Your task to perform on an android device: turn off location history Image 0: 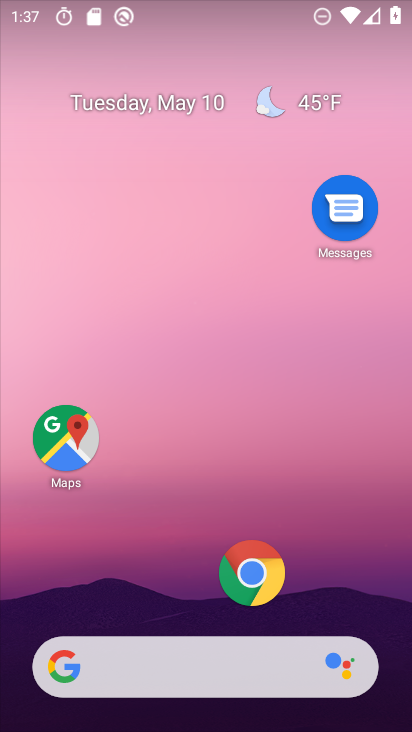
Step 0: drag from (212, 620) to (276, 184)
Your task to perform on an android device: turn off location history Image 1: 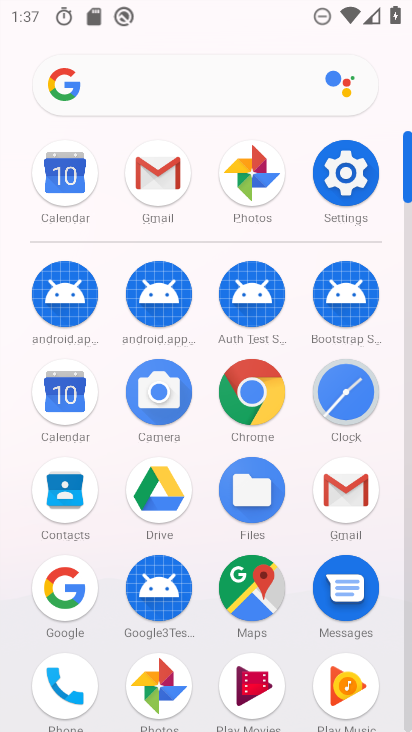
Step 1: click (360, 172)
Your task to perform on an android device: turn off location history Image 2: 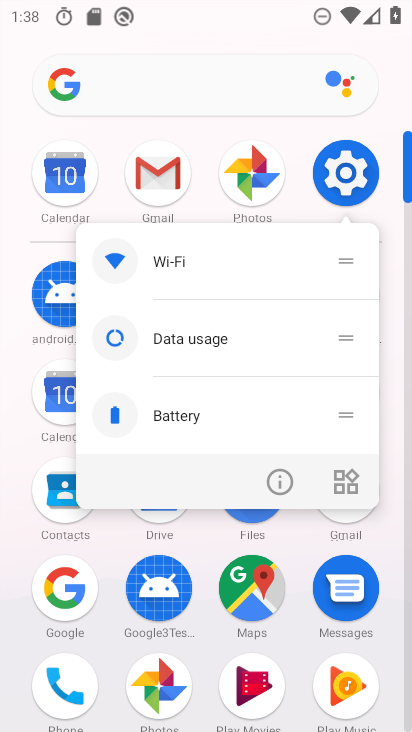
Step 2: click (279, 486)
Your task to perform on an android device: turn off location history Image 3: 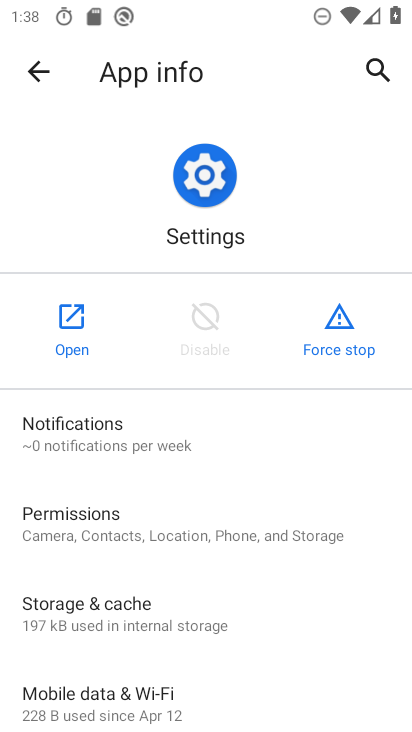
Step 3: click (65, 335)
Your task to perform on an android device: turn off location history Image 4: 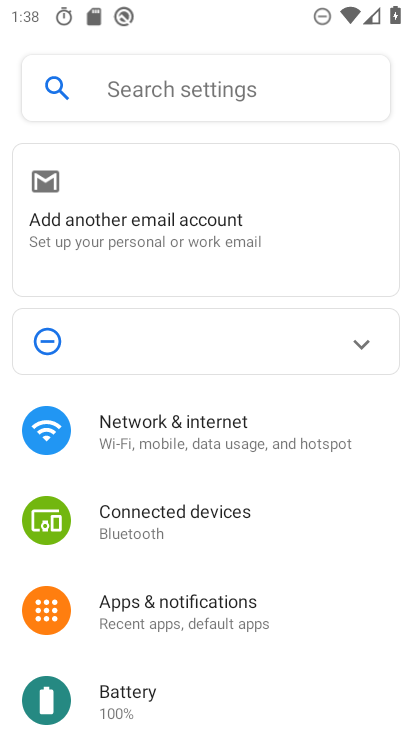
Step 4: drag from (208, 607) to (292, 205)
Your task to perform on an android device: turn off location history Image 5: 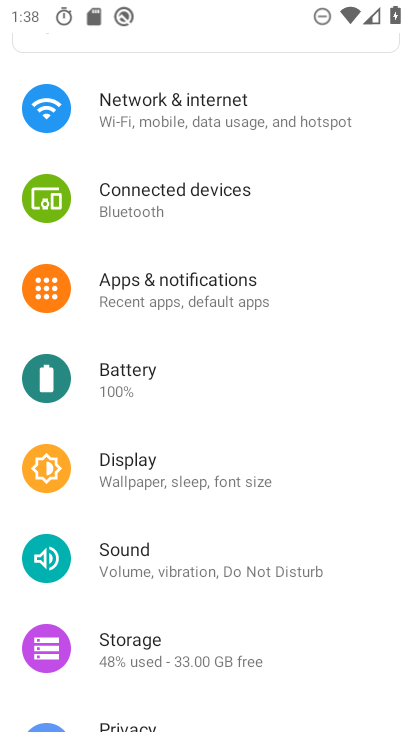
Step 5: drag from (196, 601) to (249, 220)
Your task to perform on an android device: turn off location history Image 6: 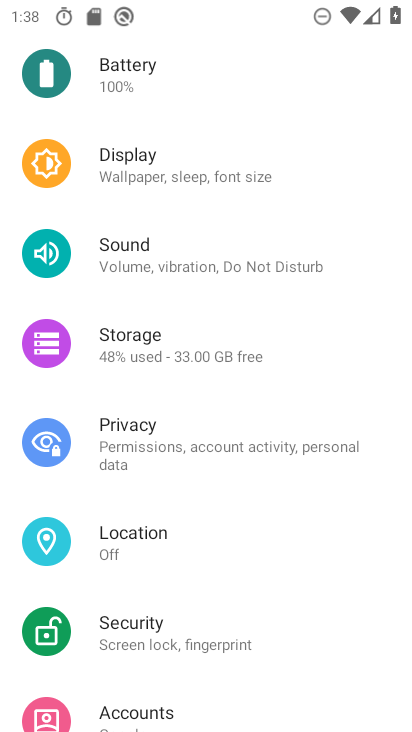
Step 6: click (149, 532)
Your task to perform on an android device: turn off location history Image 7: 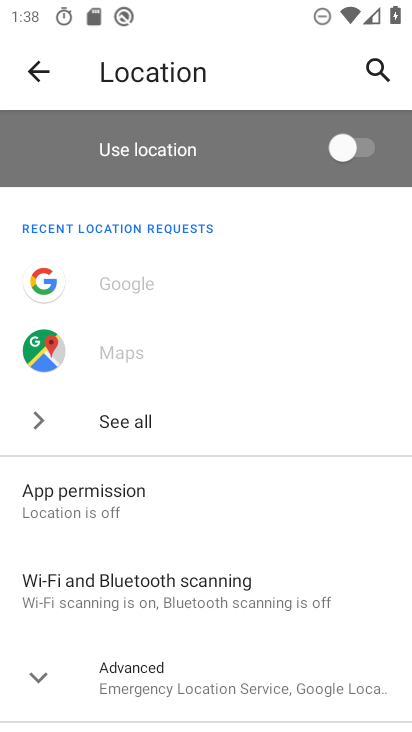
Step 7: drag from (195, 574) to (259, 289)
Your task to perform on an android device: turn off location history Image 8: 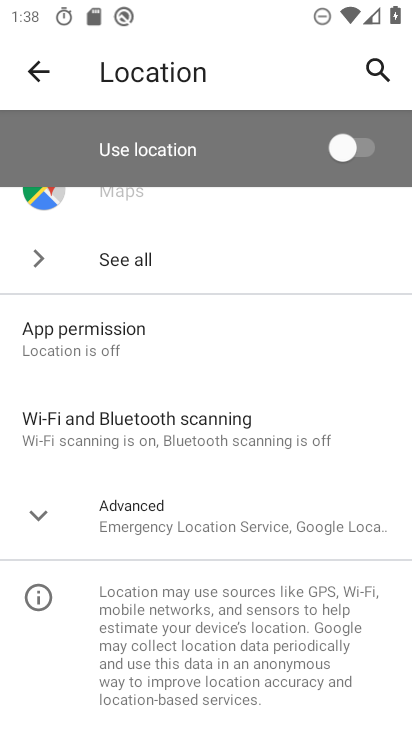
Step 8: click (145, 503)
Your task to perform on an android device: turn off location history Image 9: 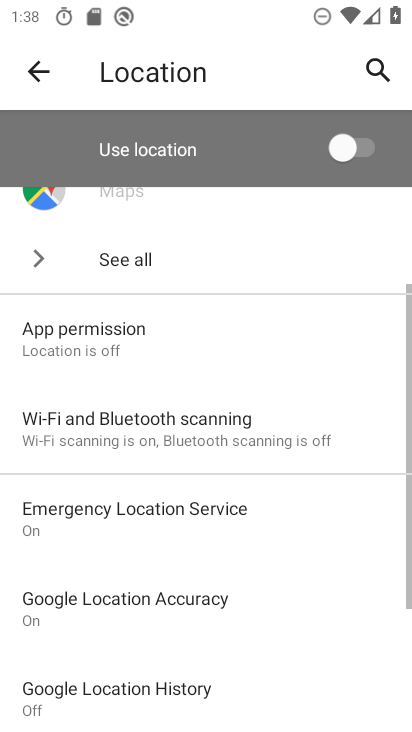
Step 9: drag from (189, 548) to (244, 275)
Your task to perform on an android device: turn off location history Image 10: 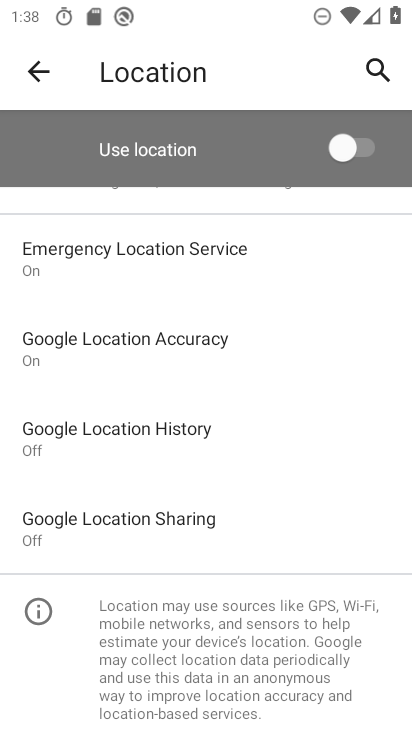
Step 10: click (181, 467)
Your task to perform on an android device: turn off location history Image 11: 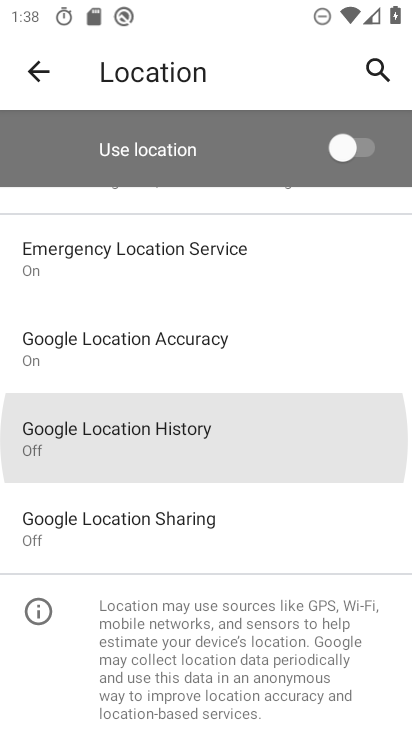
Step 11: click (176, 466)
Your task to perform on an android device: turn off location history Image 12: 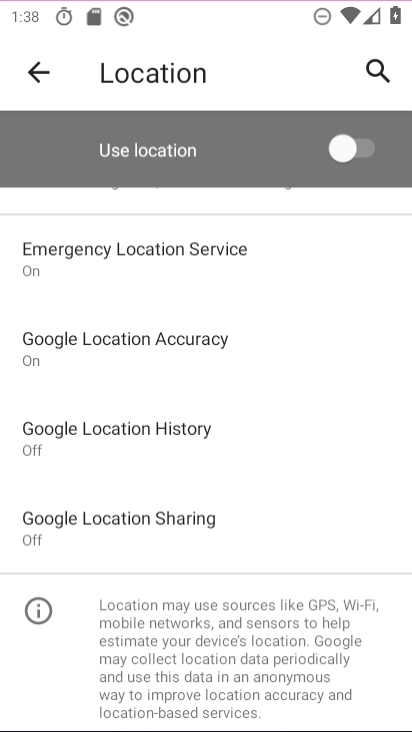
Step 12: click (167, 457)
Your task to perform on an android device: turn off location history Image 13: 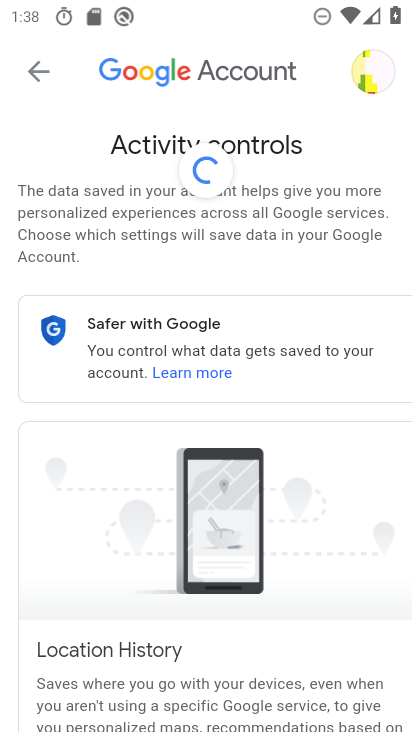
Step 13: drag from (269, 597) to (298, 218)
Your task to perform on an android device: turn off location history Image 14: 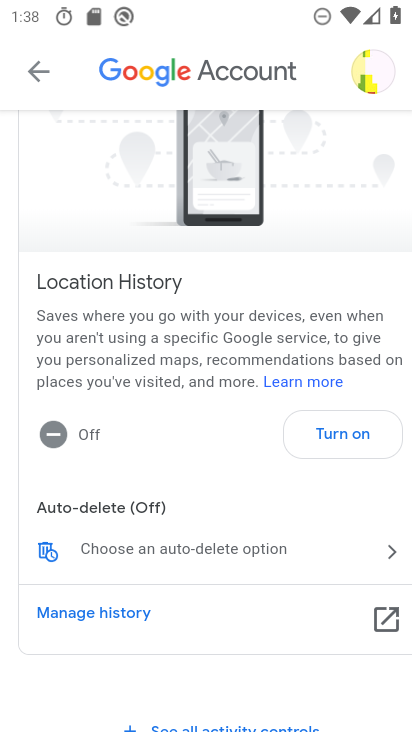
Step 14: drag from (229, 562) to (318, 198)
Your task to perform on an android device: turn off location history Image 15: 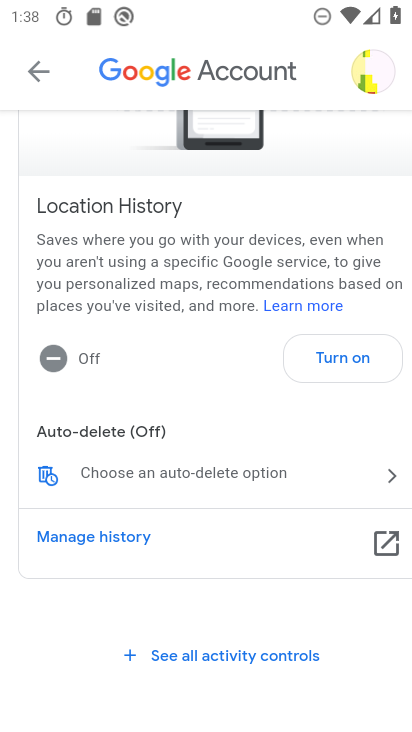
Step 15: click (335, 352)
Your task to perform on an android device: turn off location history Image 16: 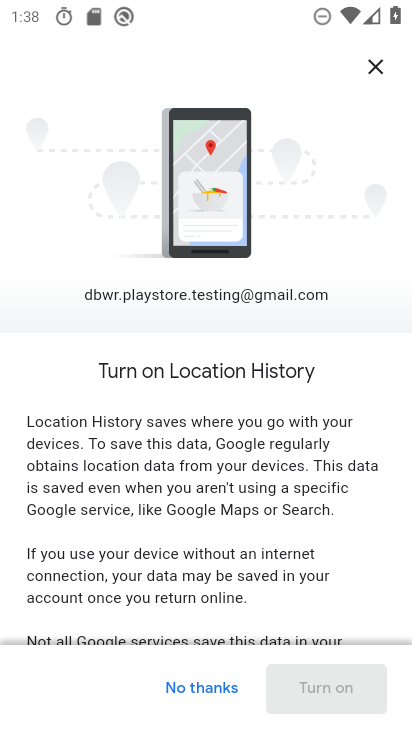
Step 16: task complete